Your task to perform on an android device: Go to internet settings Image 0: 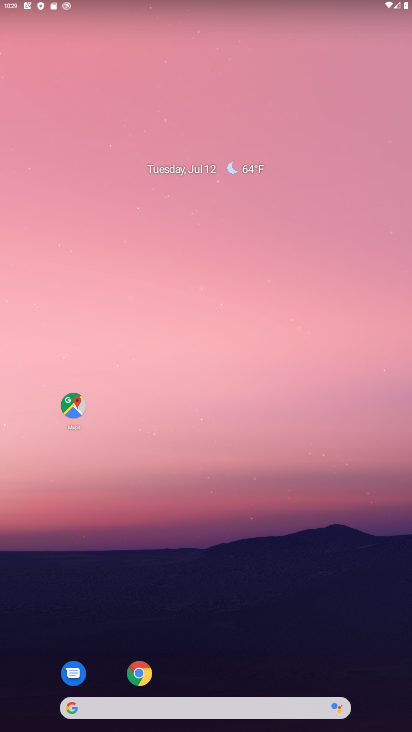
Step 0: drag from (242, 441) to (238, 214)
Your task to perform on an android device: Go to internet settings Image 1: 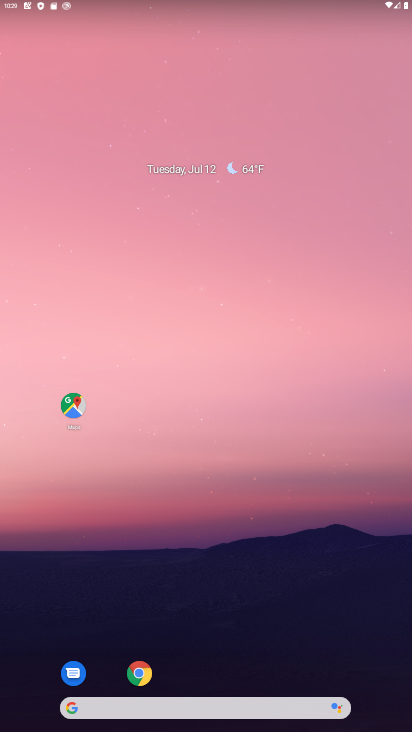
Step 1: drag from (261, 591) to (232, 90)
Your task to perform on an android device: Go to internet settings Image 2: 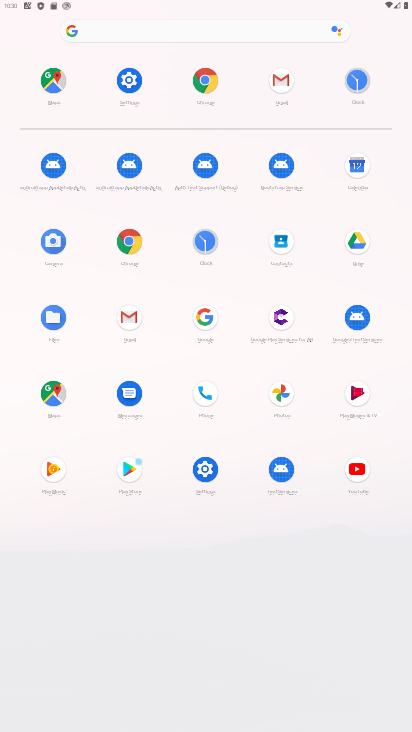
Step 2: click (130, 76)
Your task to perform on an android device: Go to internet settings Image 3: 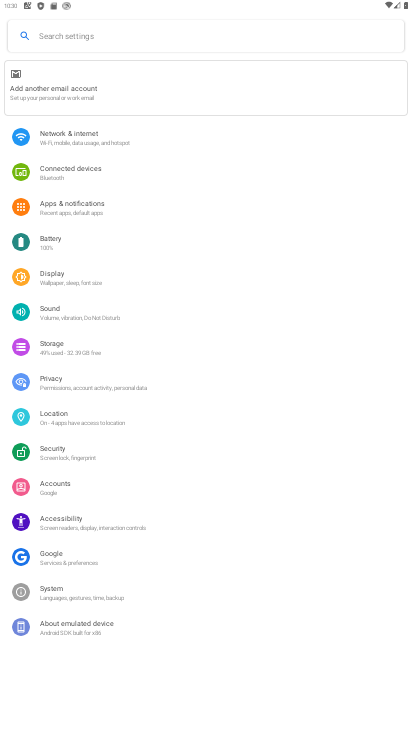
Step 3: click (80, 137)
Your task to perform on an android device: Go to internet settings Image 4: 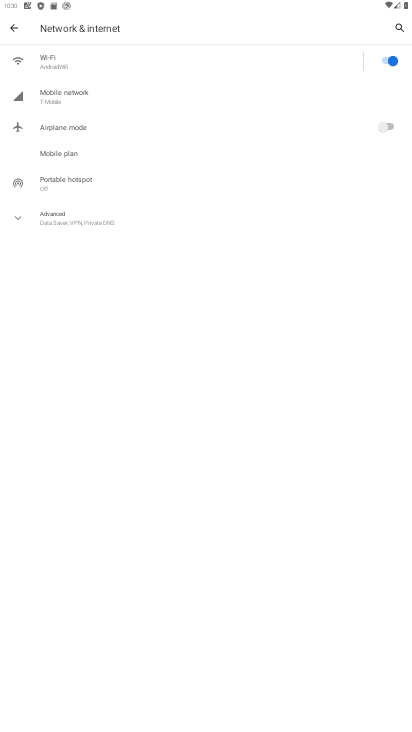
Step 4: click (87, 230)
Your task to perform on an android device: Go to internet settings Image 5: 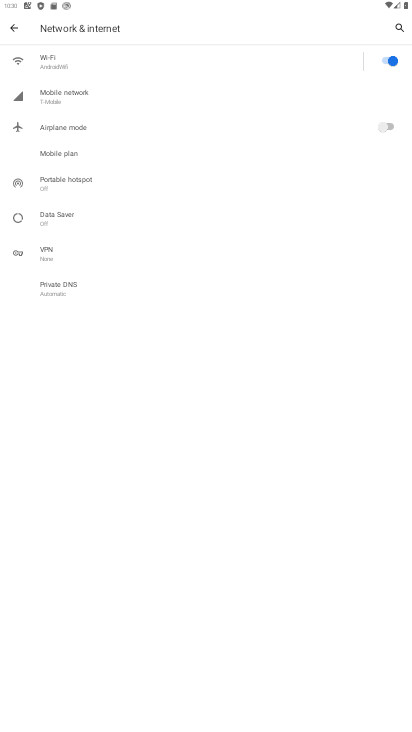
Step 5: task complete